Your task to perform on an android device: check the backup settings in the google photos Image 0: 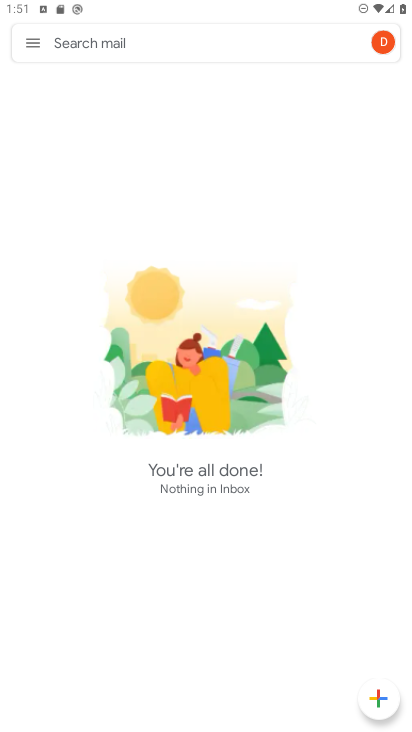
Step 0: press home button
Your task to perform on an android device: check the backup settings in the google photos Image 1: 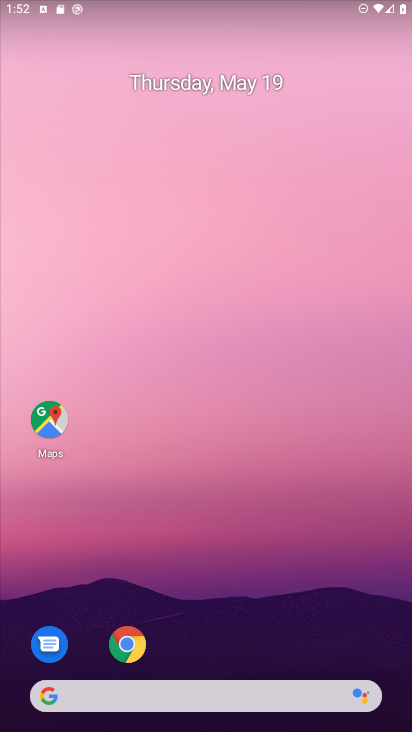
Step 1: drag from (324, 608) to (324, 268)
Your task to perform on an android device: check the backup settings in the google photos Image 2: 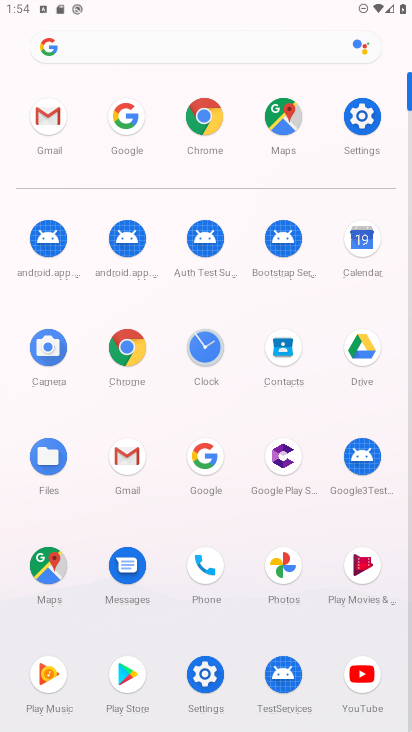
Step 2: click (284, 590)
Your task to perform on an android device: check the backup settings in the google photos Image 3: 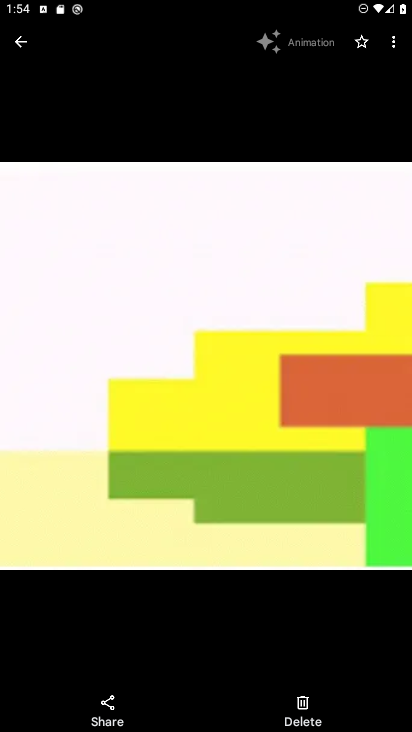
Step 3: press back button
Your task to perform on an android device: check the backup settings in the google photos Image 4: 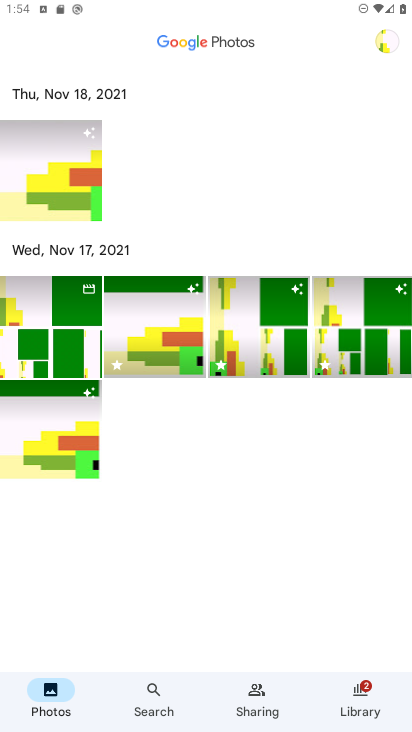
Step 4: click (382, 38)
Your task to perform on an android device: check the backup settings in the google photos Image 5: 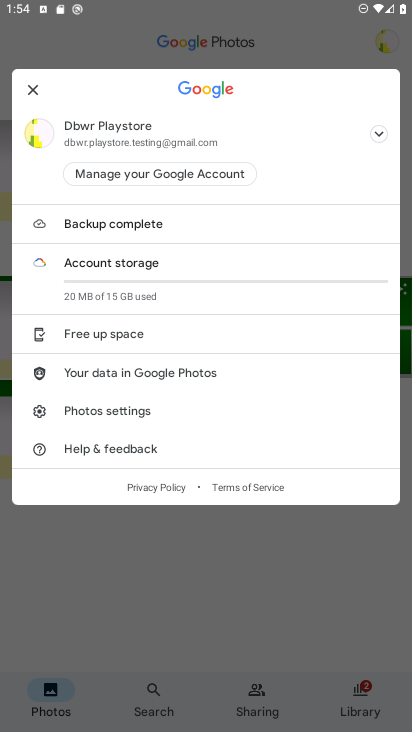
Step 5: click (161, 404)
Your task to perform on an android device: check the backup settings in the google photos Image 6: 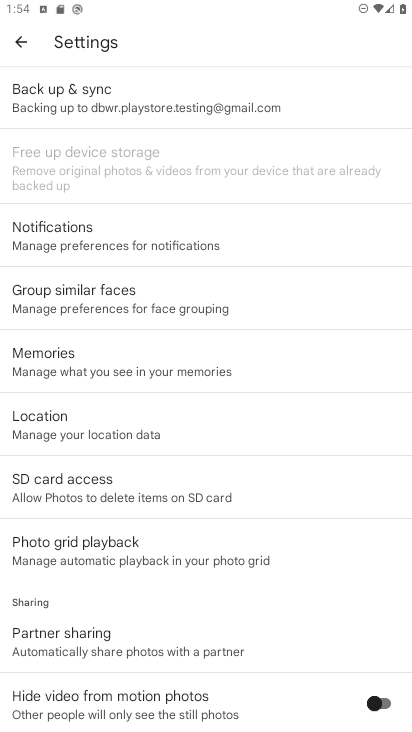
Step 6: click (162, 79)
Your task to perform on an android device: check the backup settings in the google photos Image 7: 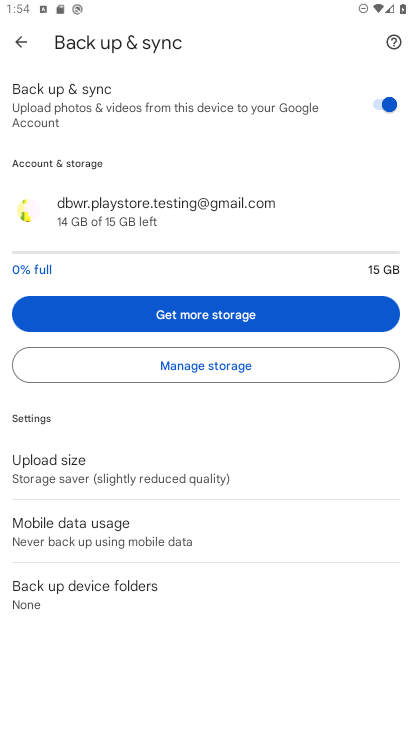
Step 7: task complete